Your task to perform on an android device: add a label to a message in the gmail app Image 0: 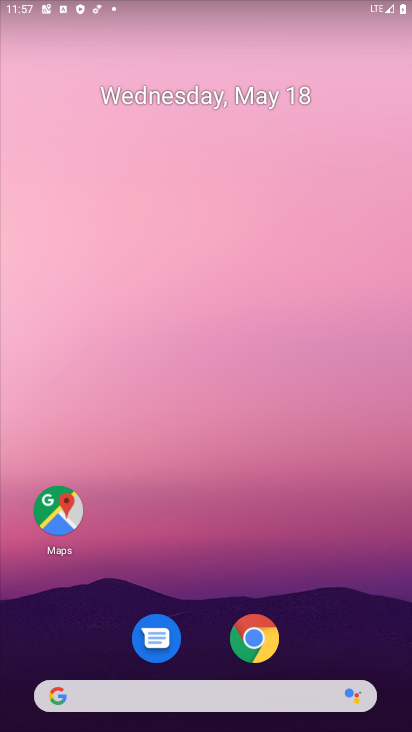
Step 0: drag from (362, 627) to (356, 184)
Your task to perform on an android device: add a label to a message in the gmail app Image 1: 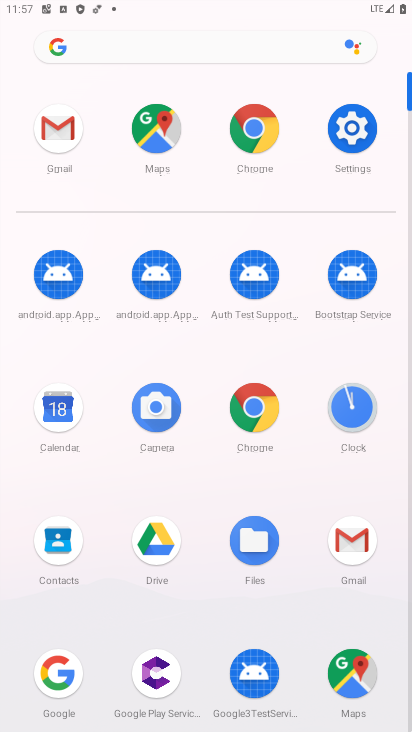
Step 1: click (366, 551)
Your task to perform on an android device: add a label to a message in the gmail app Image 2: 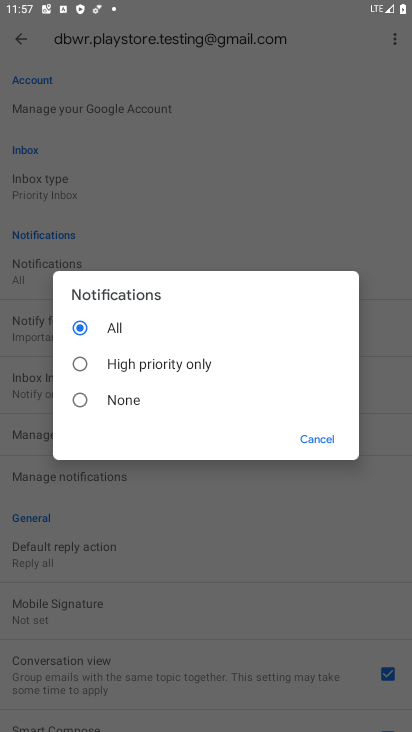
Step 2: click (324, 430)
Your task to perform on an android device: add a label to a message in the gmail app Image 3: 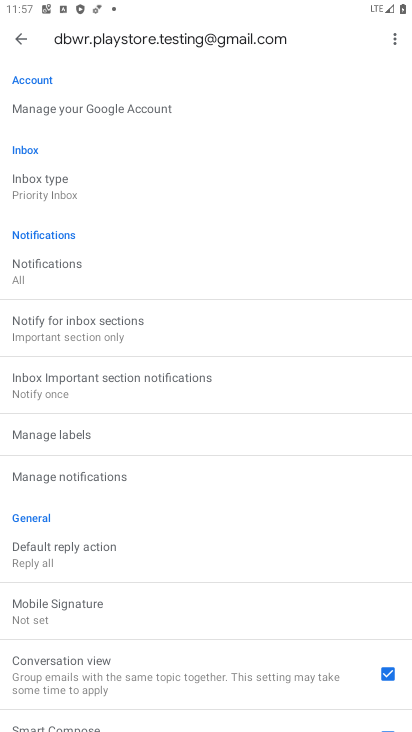
Step 3: task complete